Your task to perform on an android device: Go to calendar. Show me events next week Image 0: 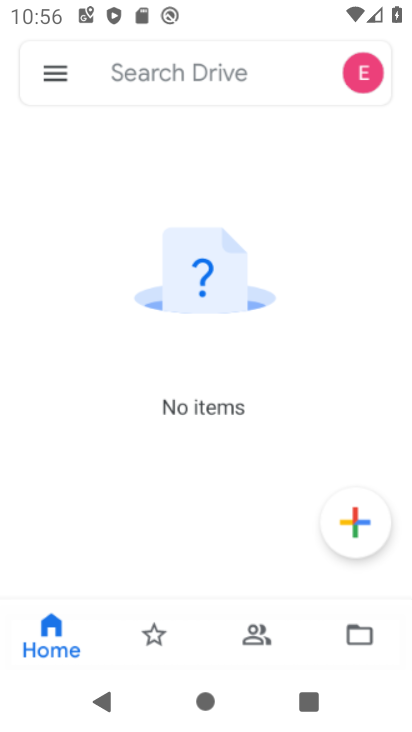
Step 0: press home button
Your task to perform on an android device: Go to calendar. Show me events next week Image 1: 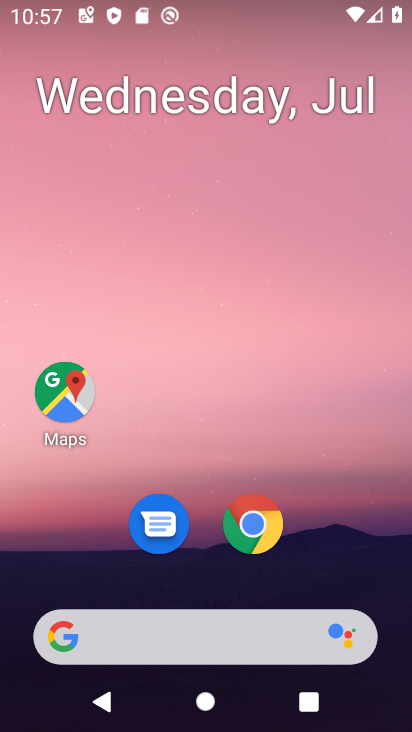
Step 1: drag from (193, 640) to (340, 58)
Your task to perform on an android device: Go to calendar. Show me events next week Image 2: 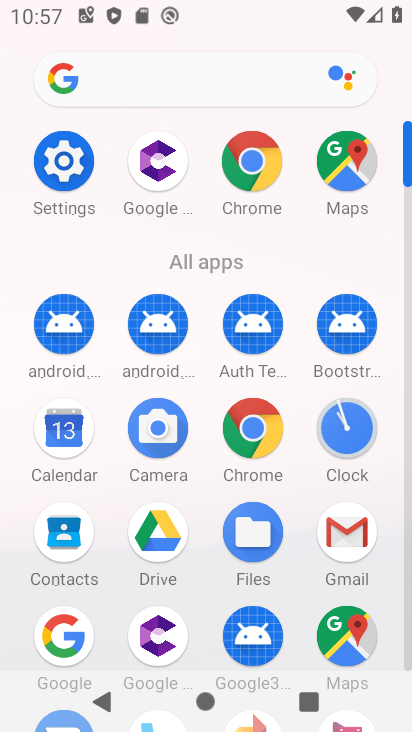
Step 2: click (62, 421)
Your task to perform on an android device: Go to calendar. Show me events next week Image 3: 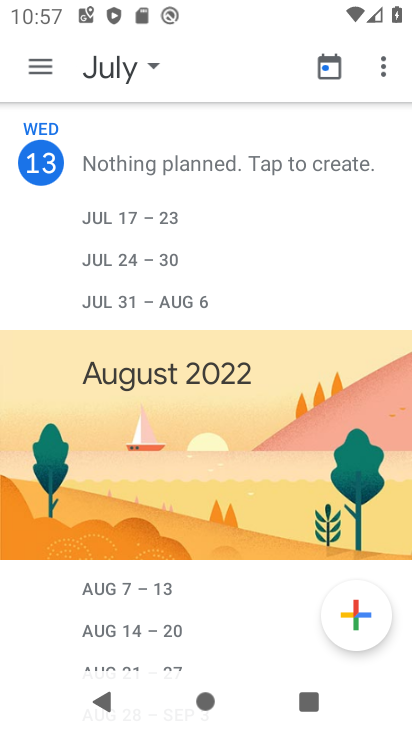
Step 3: click (126, 78)
Your task to perform on an android device: Go to calendar. Show me events next week Image 4: 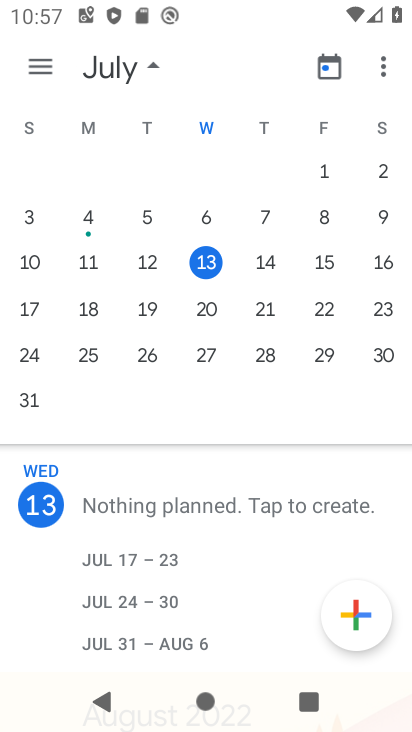
Step 4: click (40, 314)
Your task to perform on an android device: Go to calendar. Show me events next week Image 5: 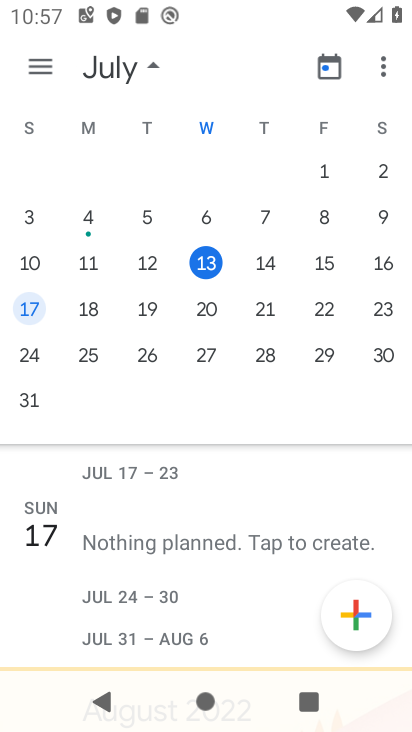
Step 5: click (42, 62)
Your task to perform on an android device: Go to calendar. Show me events next week Image 6: 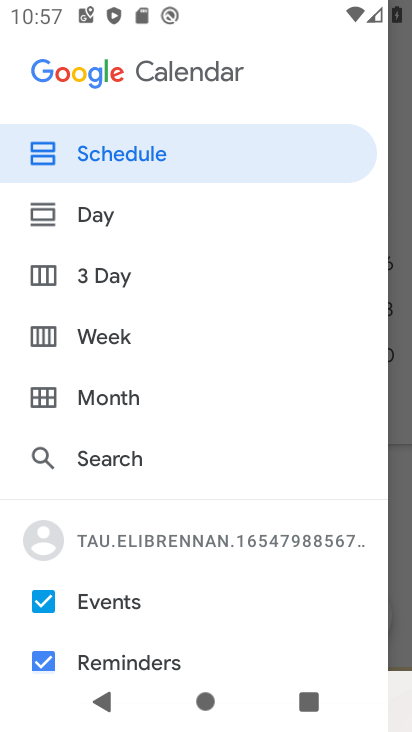
Step 6: click (94, 340)
Your task to perform on an android device: Go to calendar. Show me events next week Image 7: 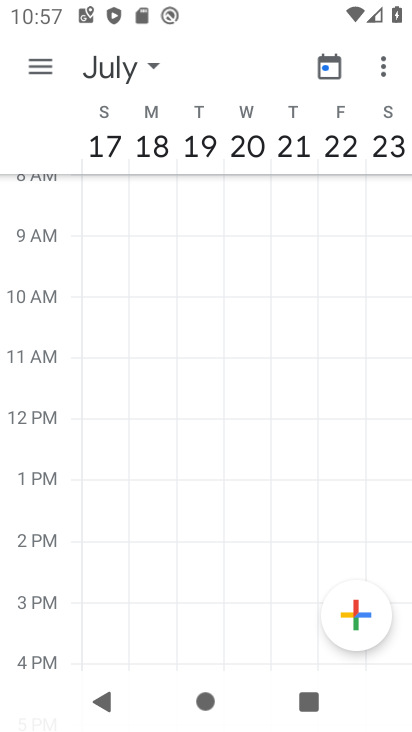
Step 7: click (54, 64)
Your task to perform on an android device: Go to calendar. Show me events next week Image 8: 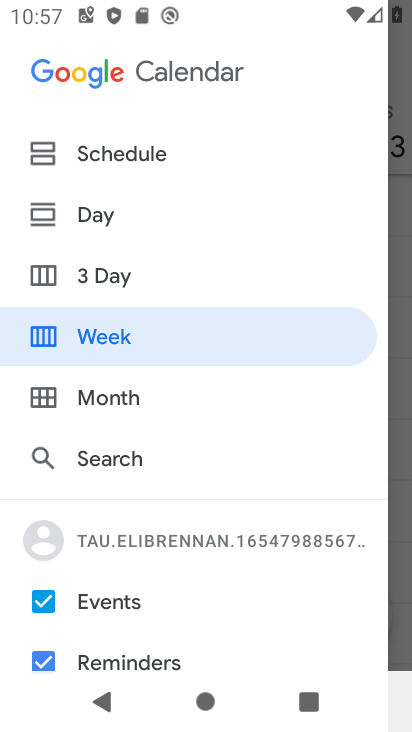
Step 8: click (104, 155)
Your task to perform on an android device: Go to calendar. Show me events next week Image 9: 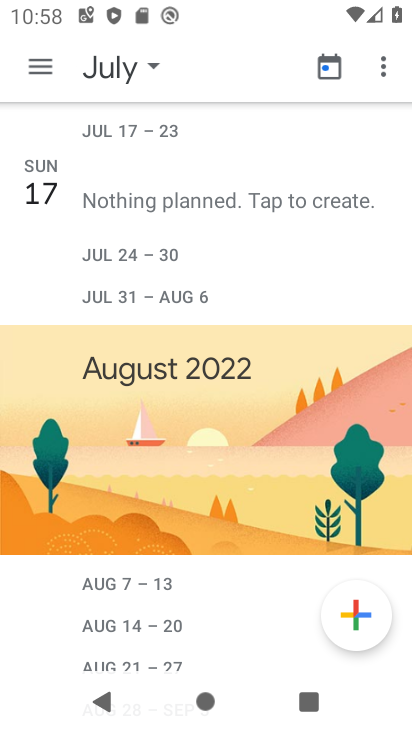
Step 9: task complete